Your task to perform on an android device: open device folders in google photos Image 0: 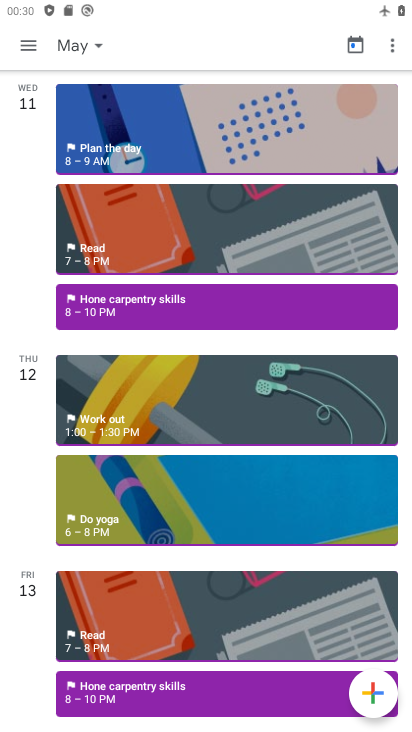
Step 0: press home button
Your task to perform on an android device: open device folders in google photos Image 1: 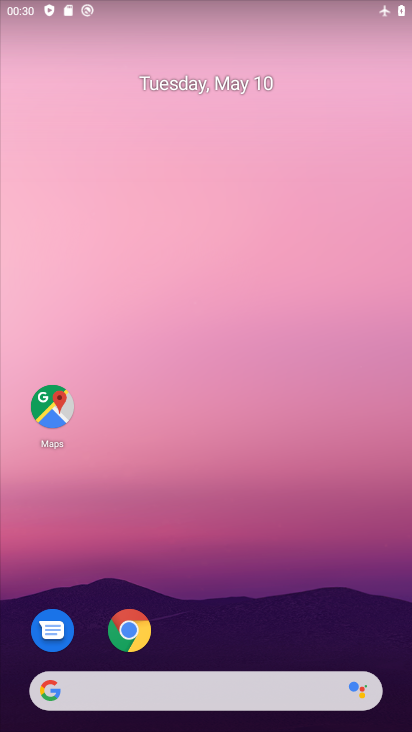
Step 1: drag from (213, 720) to (208, 209)
Your task to perform on an android device: open device folders in google photos Image 2: 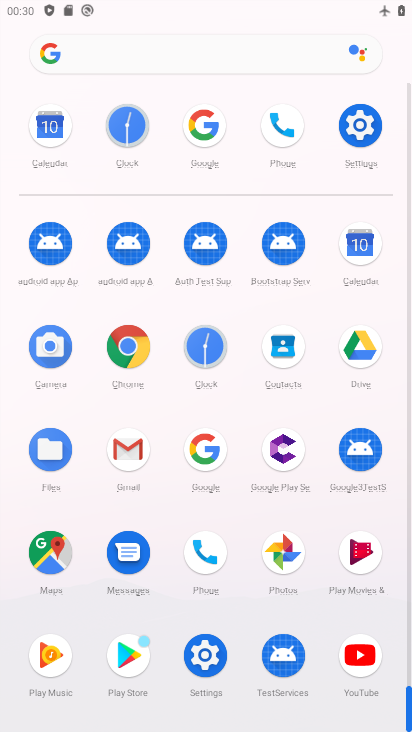
Step 2: click (286, 550)
Your task to perform on an android device: open device folders in google photos Image 3: 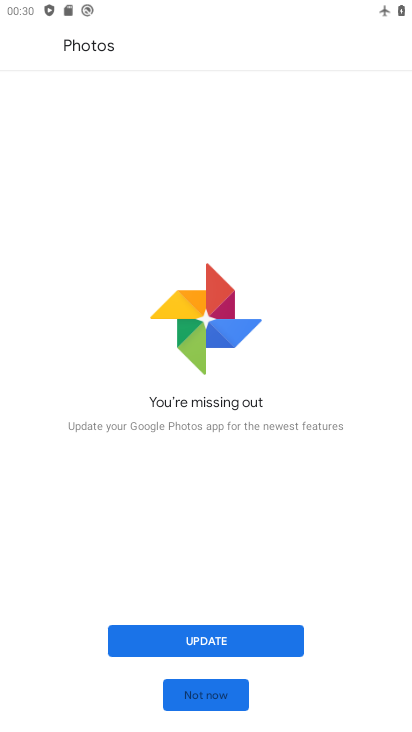
Step 3: click (209, 641)
Your task to perform on an android device: open device folders in google photos Image 4: 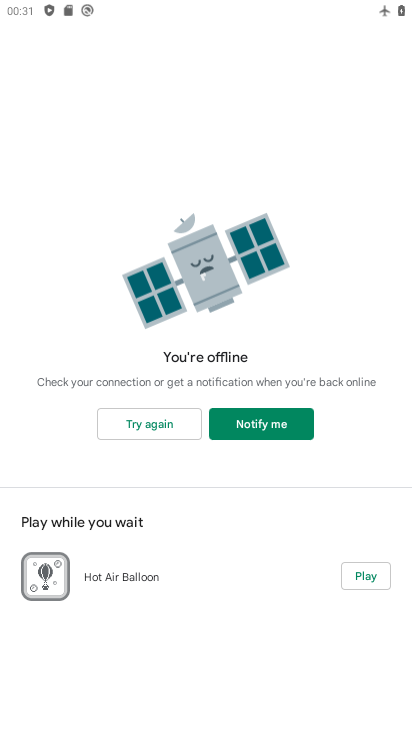
Step 4: click (245, 420)
Your task to perform on an android device: open device folders in google photos Image 5: 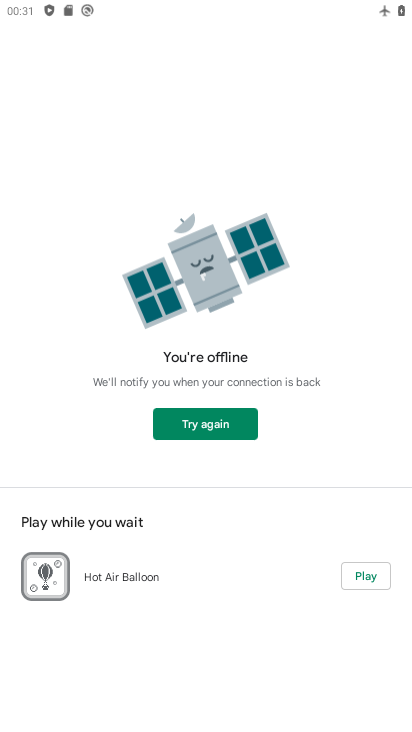
Step 5: click (213, 419)
Your task to perform on an android device: open device folders in google photos Image 6: 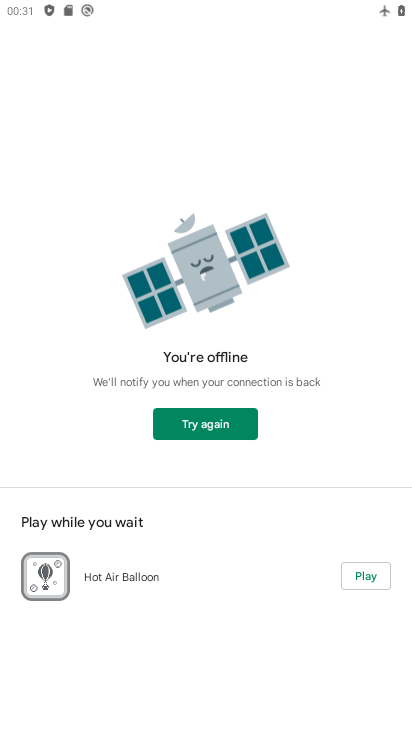
Step 6: click (217, 418)
Your task to perform on an android device: open device folders in google photos Image 7: 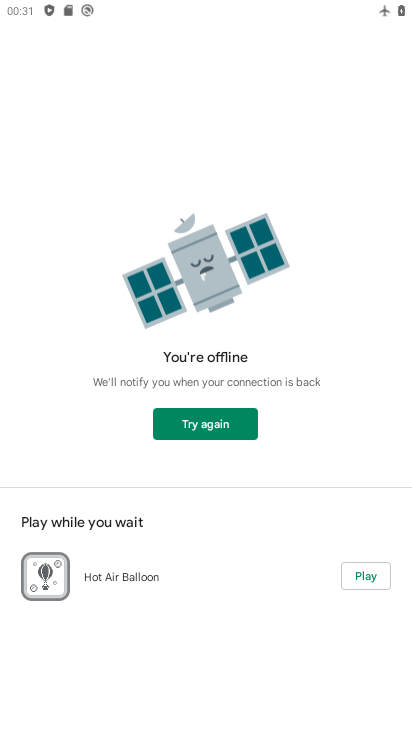
Step 7: task complete